Your task to perform on an android device: open a bookmark in the chrome app Image 0: 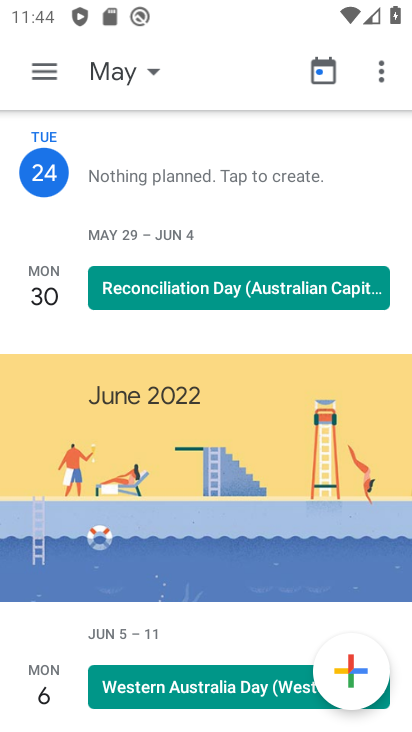
Step 0: press back button
Your task to perform on an android device: open a bookmark in the chrome app Image 1: 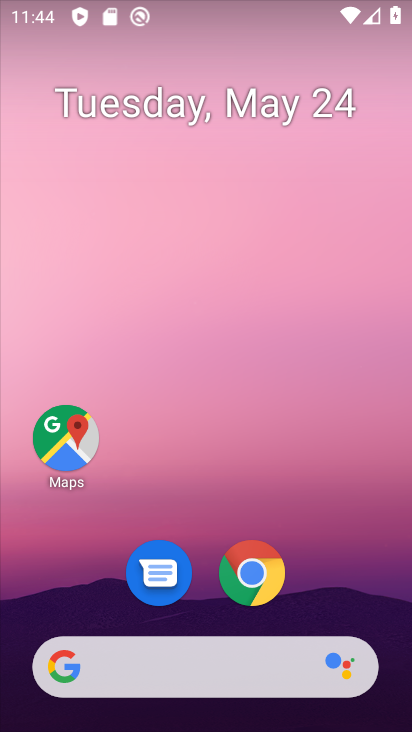
Step 1: drag from (308, 505) to (254, 39)
Your task to perform on an android device: open a bookmark in the chrome app Image 2: 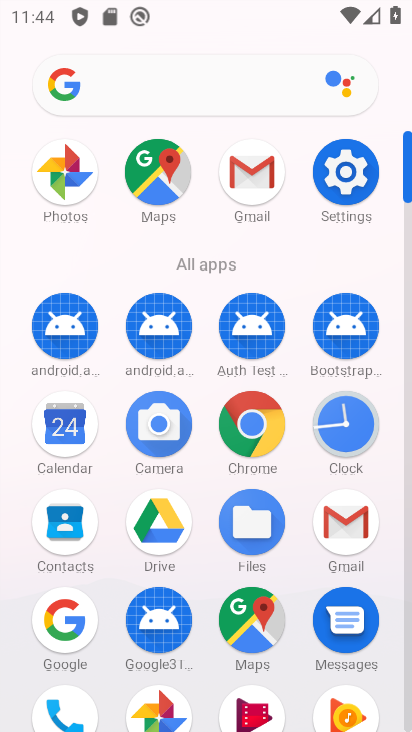
Step 2: drag from (7, 564) to (14, 246)
Your task to perform on an android device: open a bookmark in the chrome app Image 3: 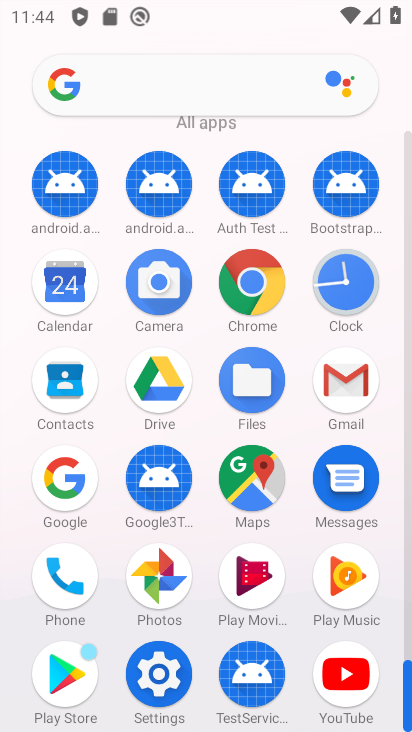
Step 3: click (251, 279)
Your task to perform on an android device: open a bookmark in the chrome app Image 4: 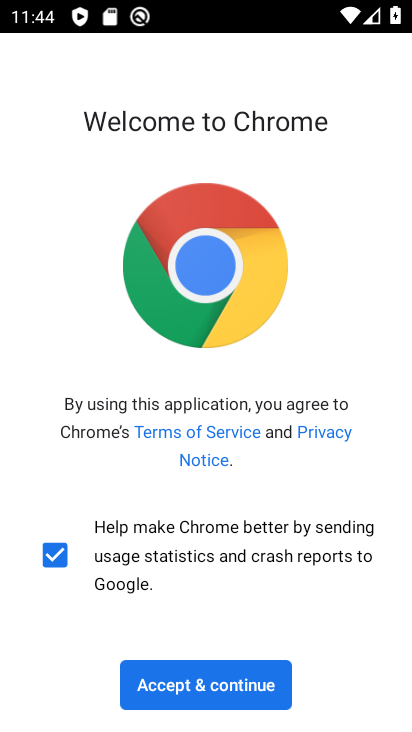
Step 4: click (217, 683)
Your task to perform on an android device: open a bookmark in the chrome app Image 5: 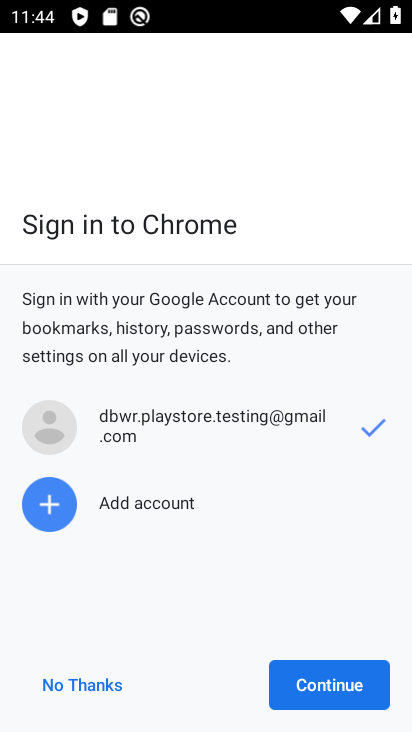
Step 5: click (357, 679)
Your task to perform on an android device: open a bookmark in the chrome app Image 6: 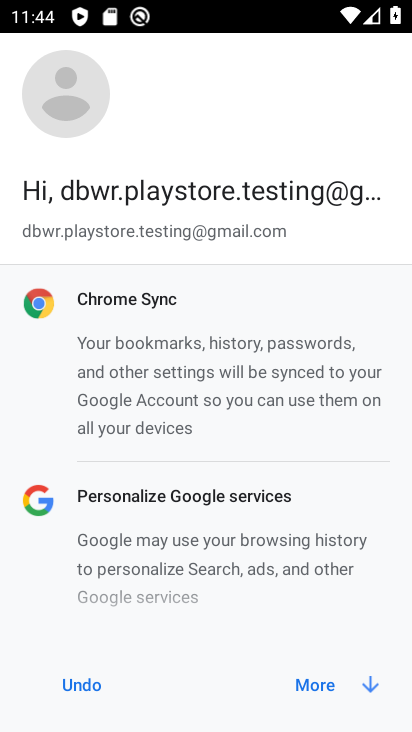
Step 6: click (324, 679)
Your task to perform on an android device: open a bookmark in the chrome app Image 7: 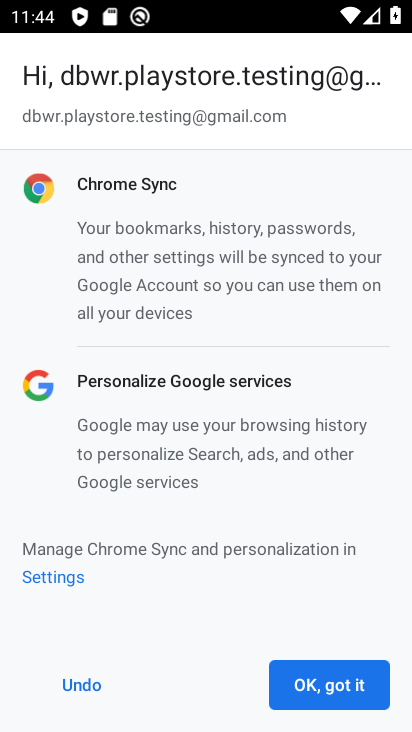
Step 7: click (324, 679)
Your task to perform on an android device: open a bookmark in the chrome app Image 8: 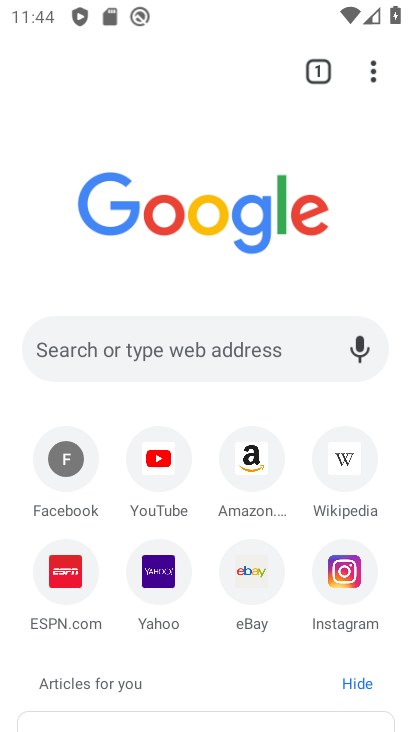
Step 8: task complete